Your task to perform on an android device: move an email to a new category in the gmail app Image 0: 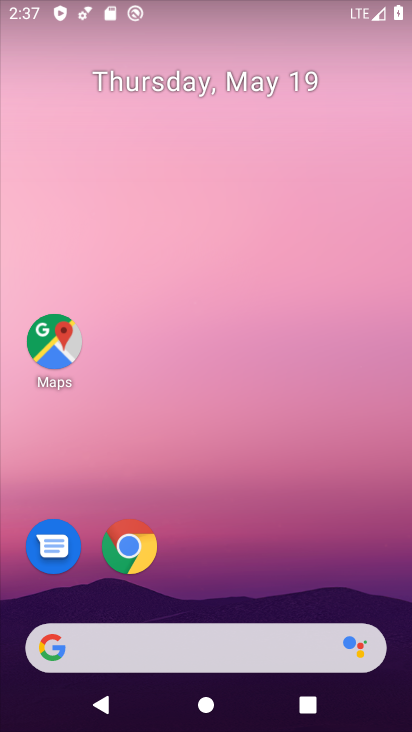
Step 0: press home button
Your task to perform on an android device: move an email to a new category in the gmail app Image 1: 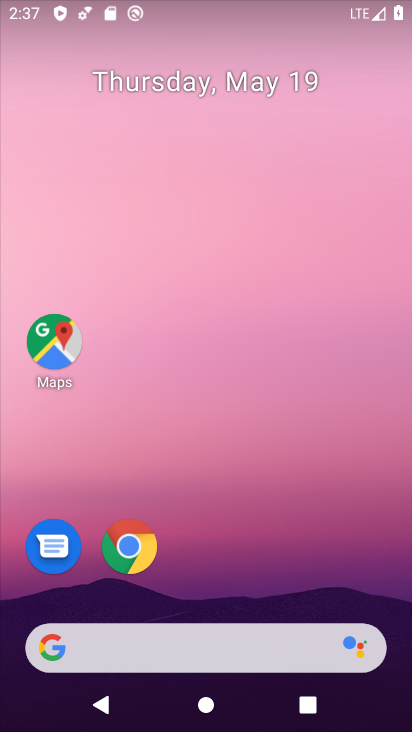
Step 1: drag from (174, 580) to (324, 60)
Your task to perform on an android device: move an email to a new category in the gmail app Image 2: 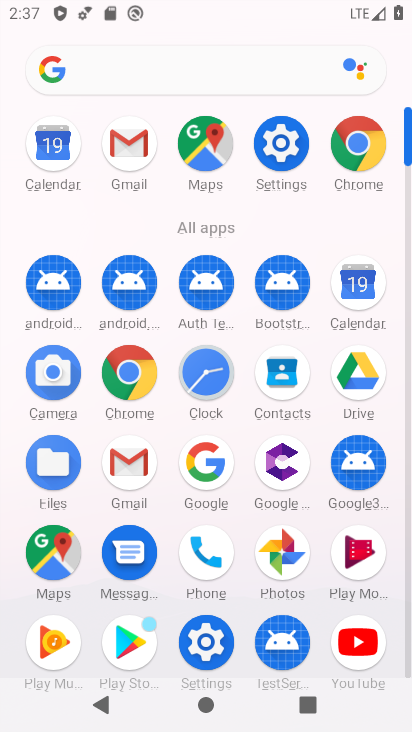
Step 2: click (128, 154)
Your task to perform on an android device: move an email to a new category in the gmail app Image 3: 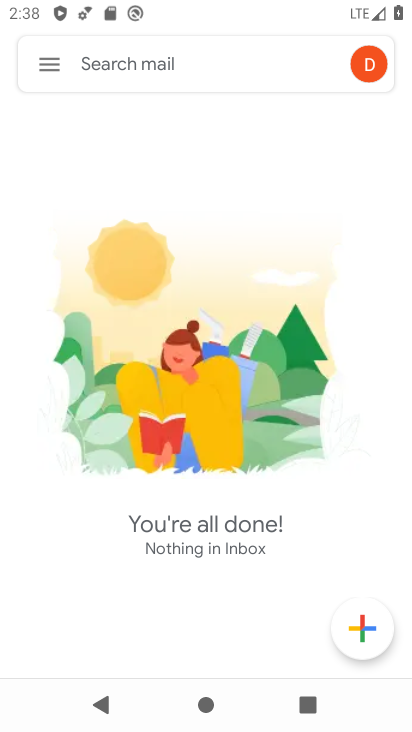
Step 3: task complete